Your task to perform on an android device: Set the phone to "Do not disturb". Image 0: 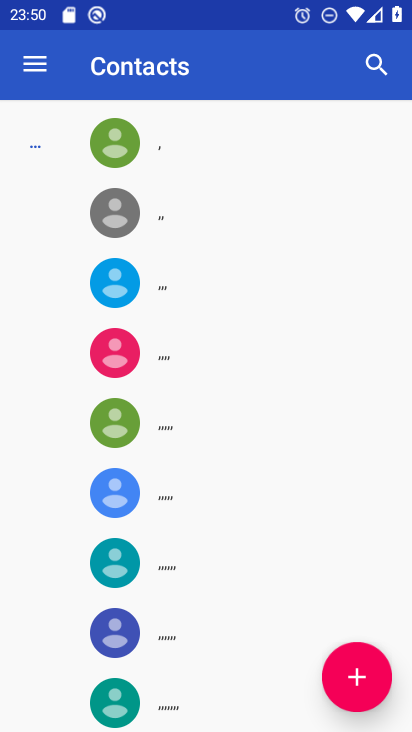
Step 0: press home button
Your task to perform on an android device: Set the phone to "Do not disturb". Image 1: 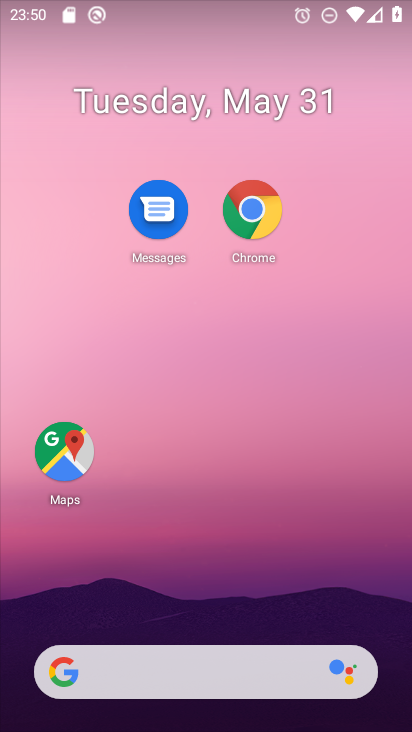
Step 1: drag from (185, 2) to (162, 638)
Your task to perform on an android device: Set the phone to "Do not disturb". Image 2: 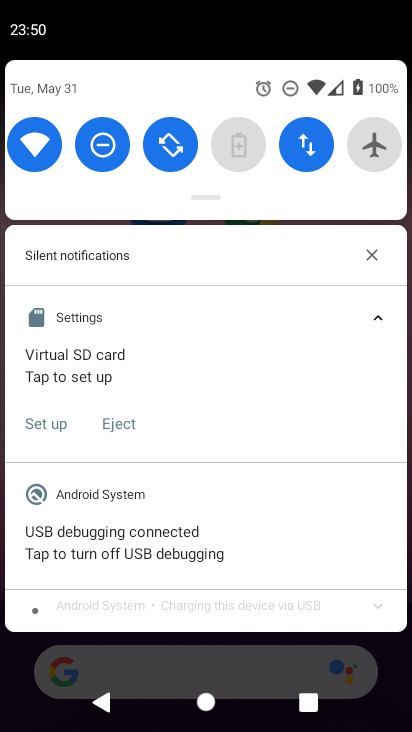
Step 2: click (100, 146)
Your task to perform on an android device: Set the phone to "Do not disturb". Image 3: 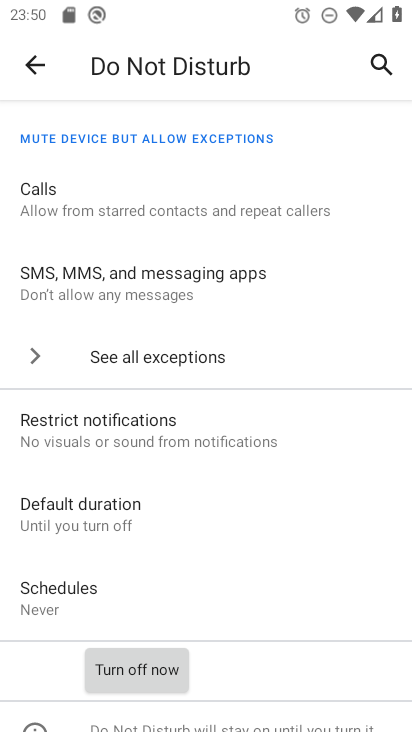
Step 3: task complete